Your task to perform on an android device: toggle notification dots Image 0: 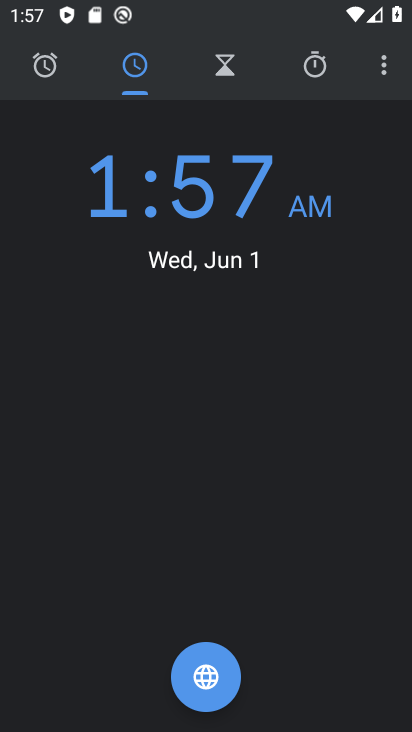
Step 0: press home button
Your task to perform on an android device: toggle notification dots Image 1: 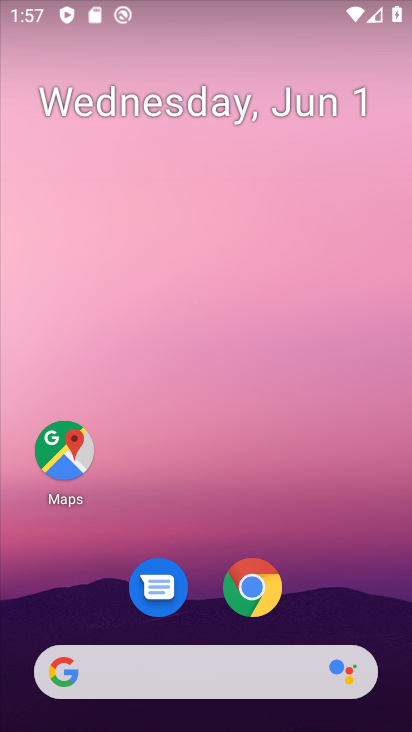
Step 1: drag from (190, 662) to (290, 119)
Your task to perform on an android device: toggle notification dots Image 2: 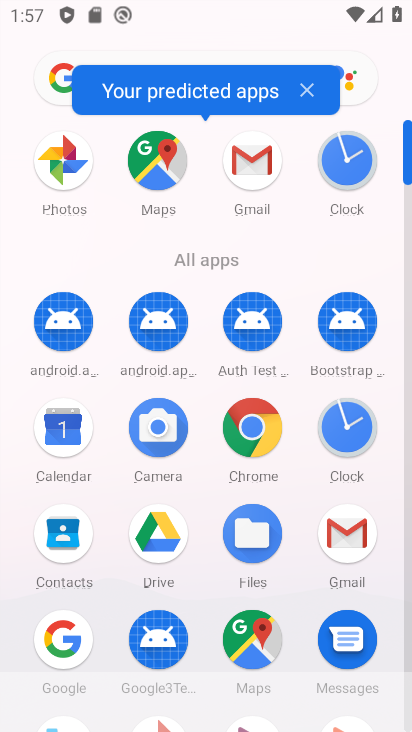
Step 2: drag from (280, 639) to (257, 35)
Your task to perform on an android device: toggle notification dots Image 3: 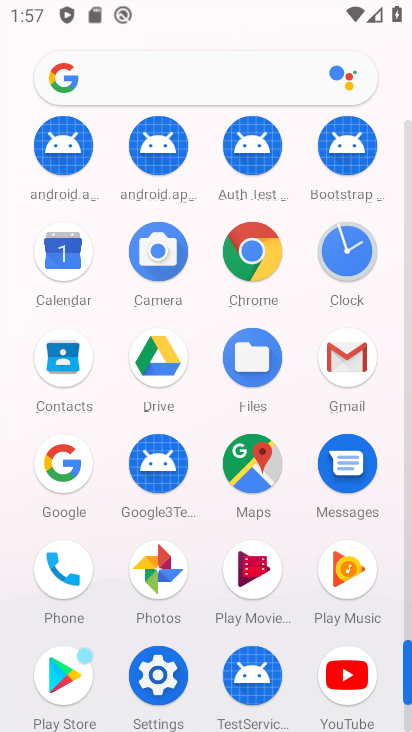
Step 3: click (174, 650)
Your task to perform on an android device: toggle notification dots Image 4: 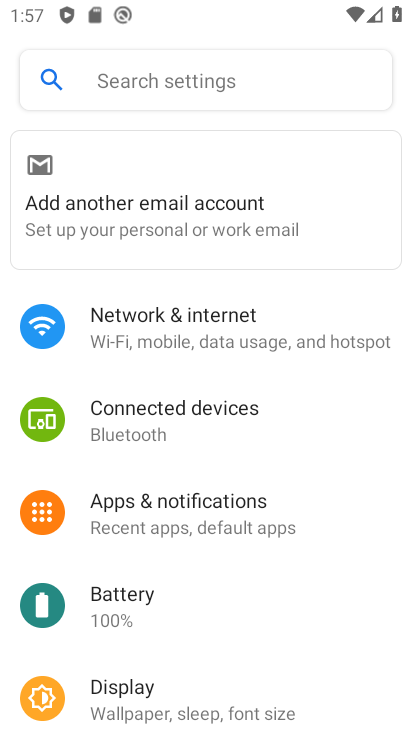
Step 4: click (206, 518)
Your task to perform on an android device: toggle notification dots Image 5: 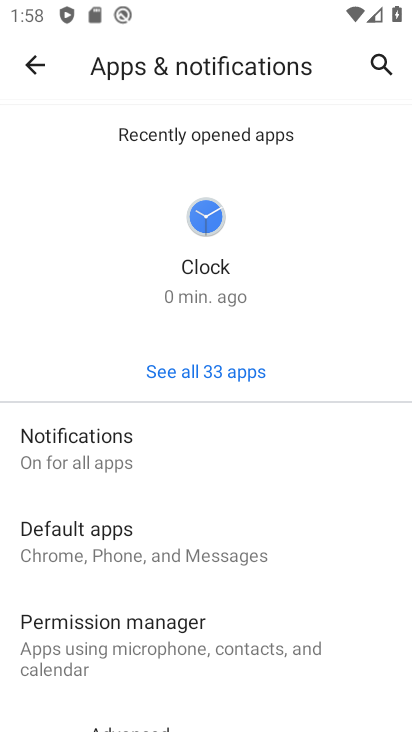
Step 5: click (114, 452)
Your task to perform on an android device: toggle notification dots Image 6: 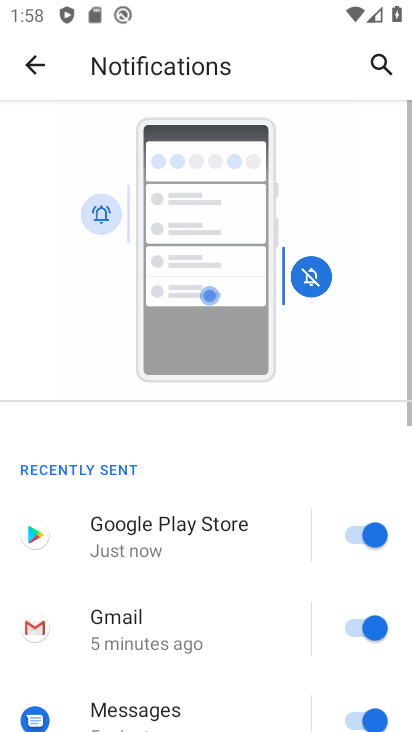
Step 6: drag from (239, 579) to (219, 204)
Your task to perform on an android device: toggle notification dots Image 7: 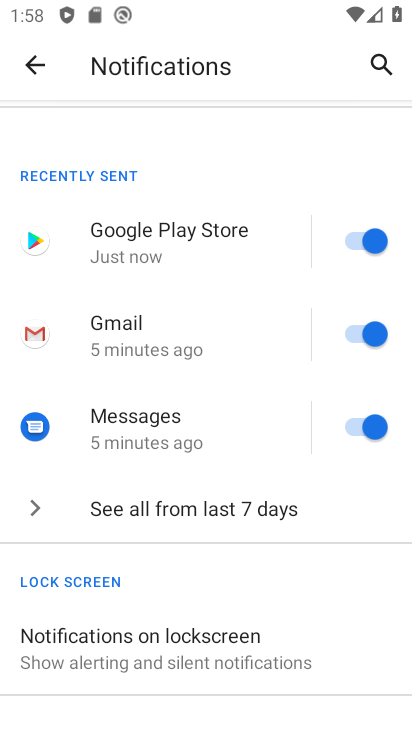
Step 7: drag from (246, 628) to (233, 269)
Your task to perform on an android device: toggle notification dots Image 8: 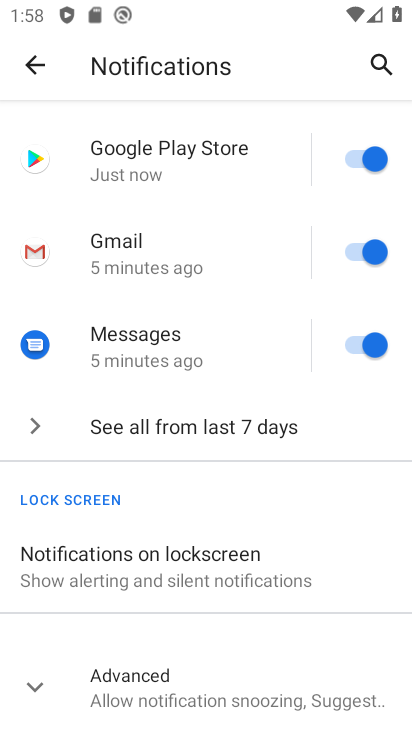
Step 8: click (153, 676)
Your task to perform on an android device: toggle notification dots Image 9: 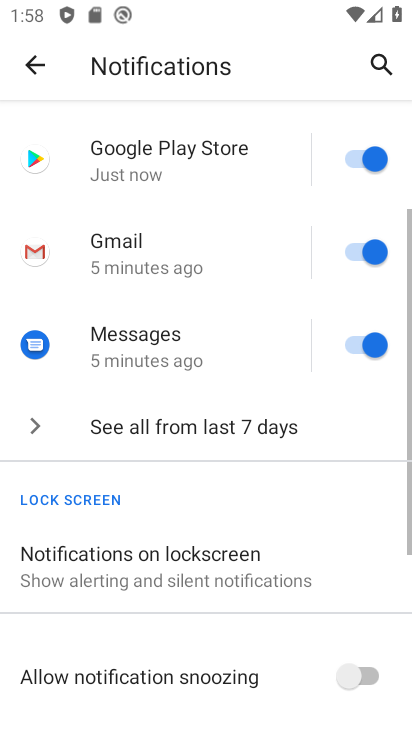
Step 9: drag from (197, 642) to (197, 295)
Your task to perform on an android device: toggle notification dots Image 10: 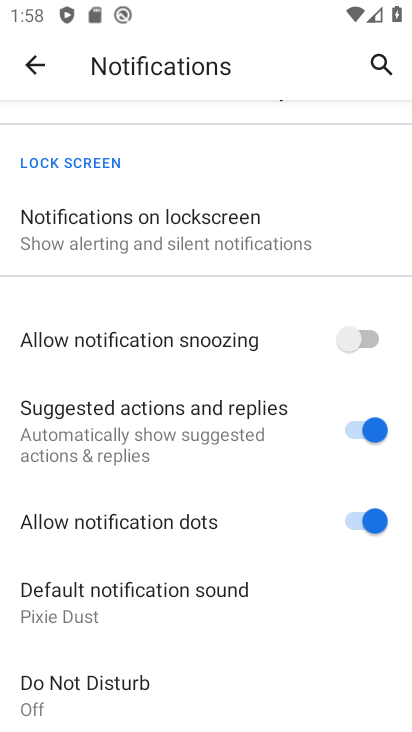
Step 10: click (371, 521)
Your task to perform on an android device: toggle notification dots Image 11: 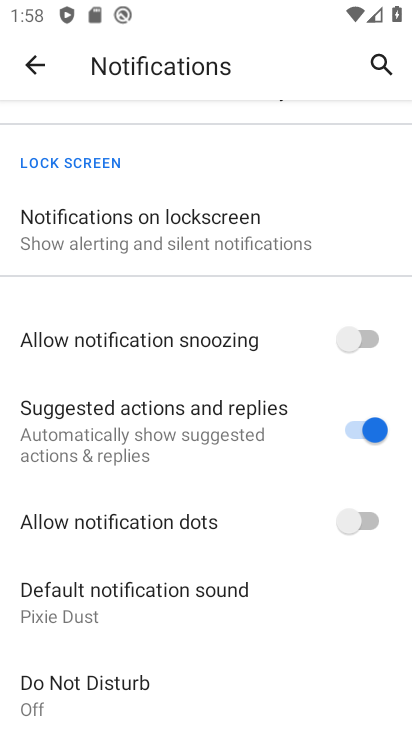
Step 11: task complete